Your task to perform on an android device: Go to sound settings Image 0: 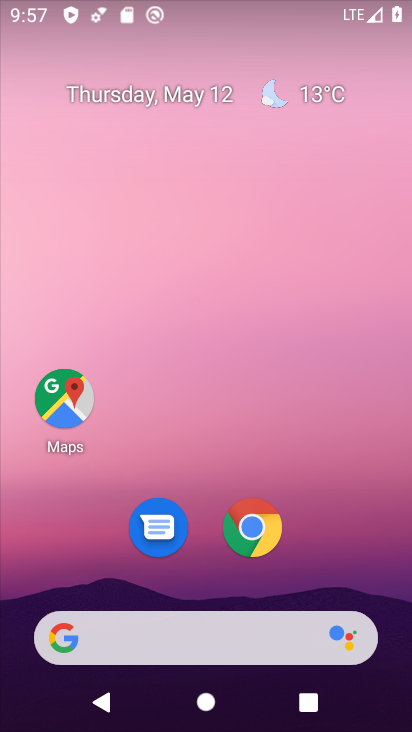
Step 0: drag from (321, 573) to (219, 169)
Your task to perform on an android device: Go to sound settings Image 1: 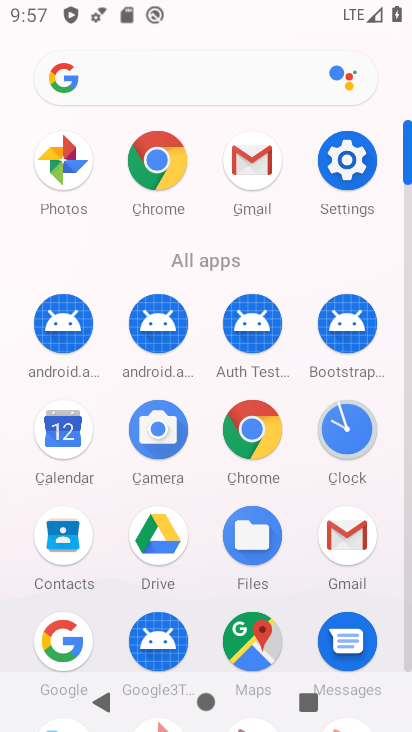
Step 1: click (346, 159)
Your task to perform on an android device: Go to sound settings Image 2: 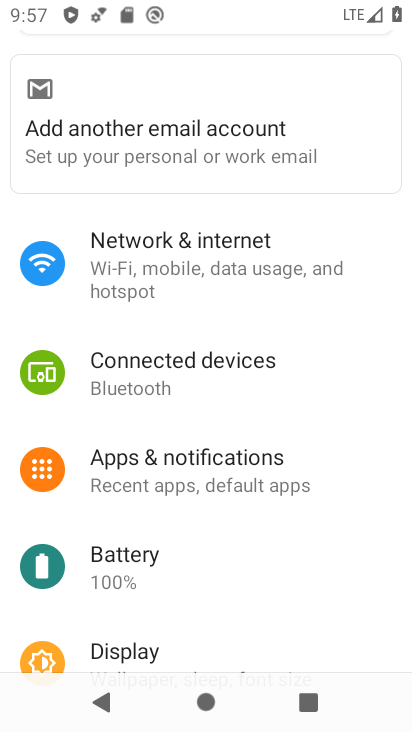
Step 2: drag from (197, 512) to (229, 363)
Your task to perform on an android device: Go to sound settings Image 3: 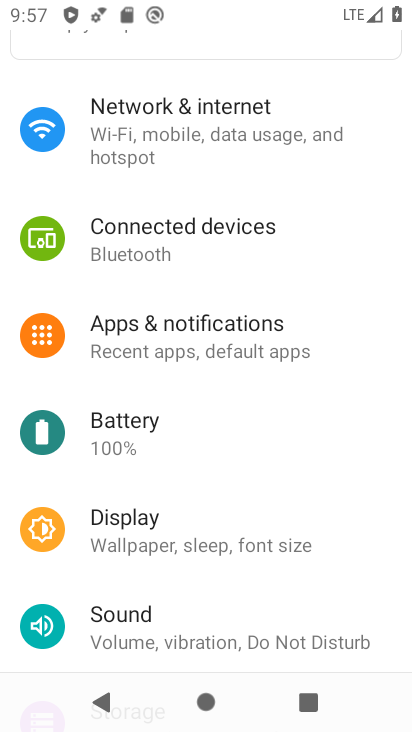
Step 3: drag from (175, 615) to (243, 396)
Your task to perform on an android device: Go to sound settings Image 4: 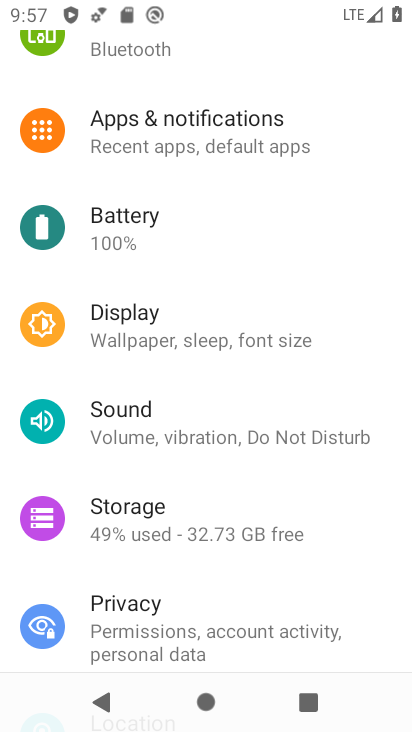
Step 4: click (191, 425)
Your task to perform on an android device: Go to sound settings Image 5: 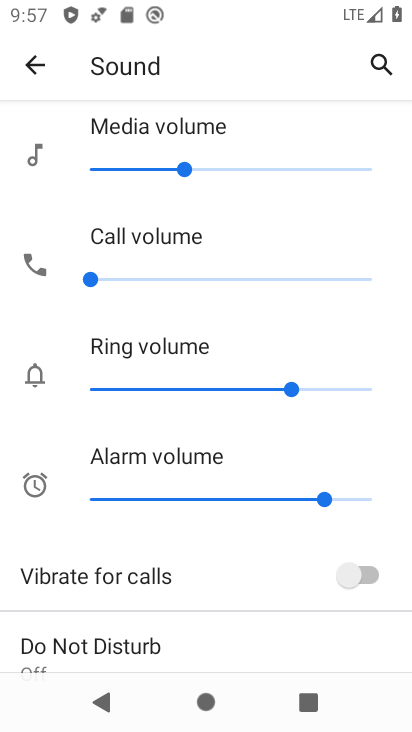
Step 5: task complete